Your task to perform on an android device: change the clock display to analog Image 0: 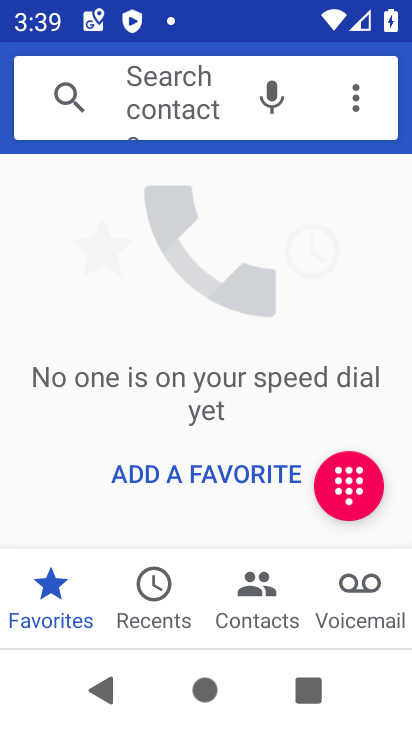
Step 0: press home button
Your task to perform on an android device: change the clock display to analog Image 1: 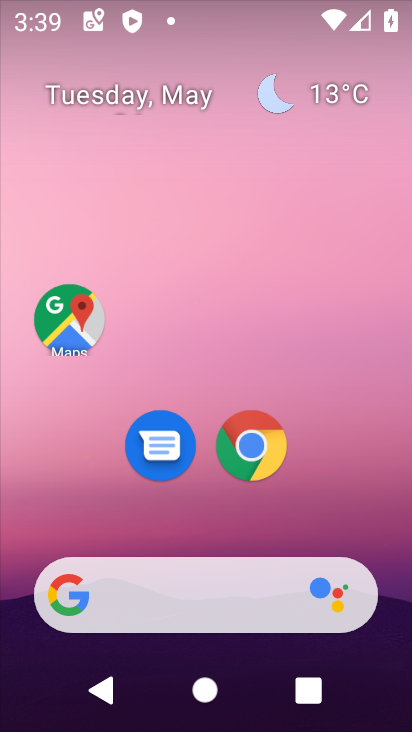
Step 1: drag from (200, 533) to (201, 37)
Your task to perform on an android device: change the clock display to analog Image 2: 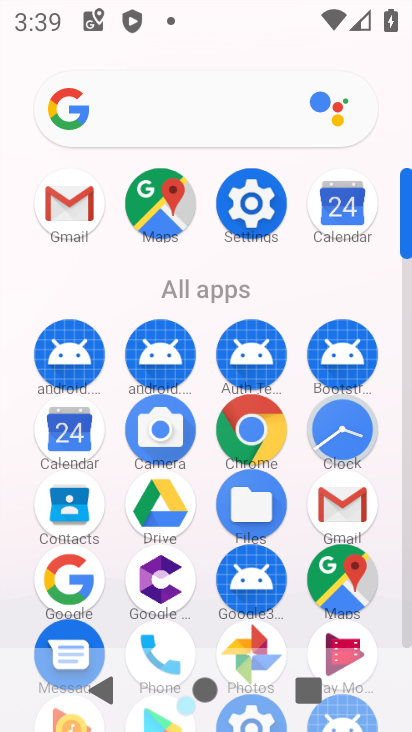
Step 2: click (338, 423)
Your task to perform on an android device: change the clock display to analog Image 3: 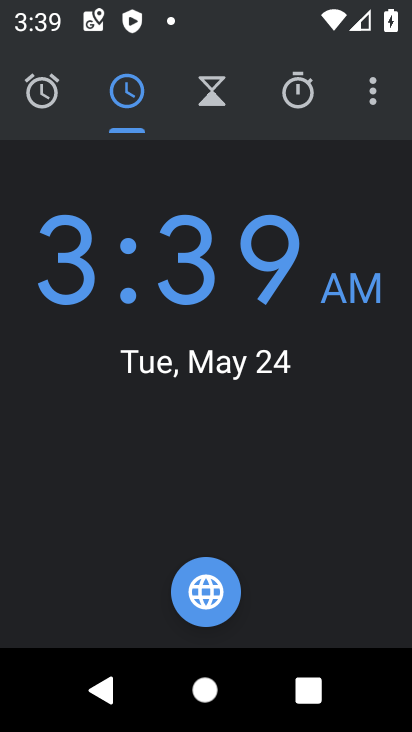
Step 3: click (372, 84)
Your task to perform on an android device: change the clock display to analog Image 4: 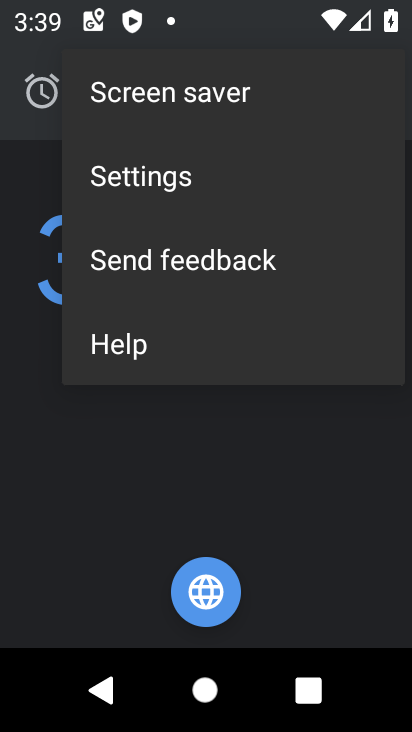
Step 4: click (204, 172)
Your task to perform on an android device: change the clock display to analog Image 5: 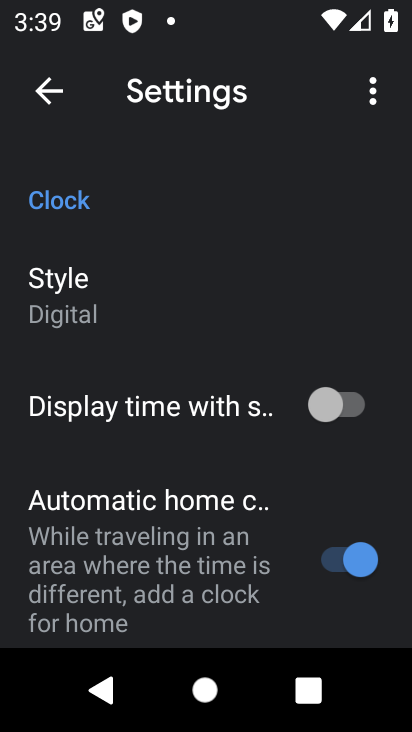
Step 5: click (116, 294)
Your task to perform on an android device: change the clock display to analog Image 6: 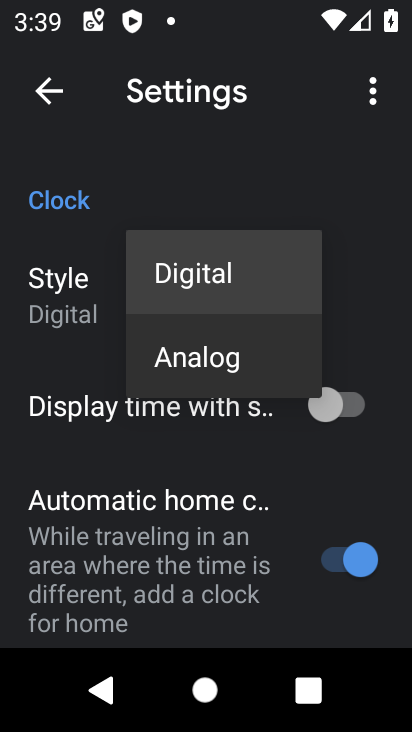
Step 6: click (204, 359)
Your task to perform on an android device: change the clock display to analog Image 7: 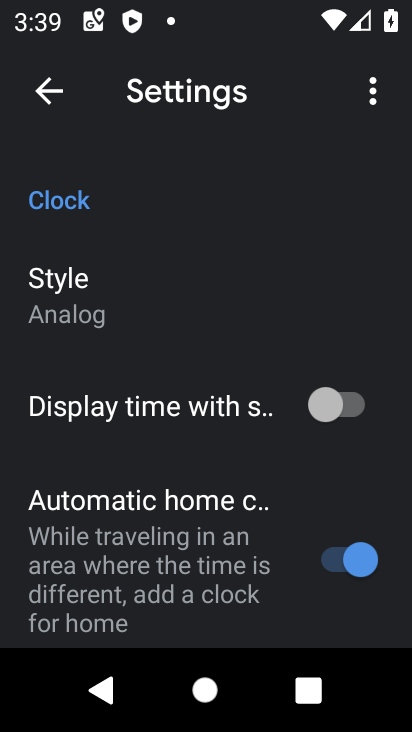
Step 7: task complete